Your task to perform on an android device: delete browsing data in the chrome app Image 0: 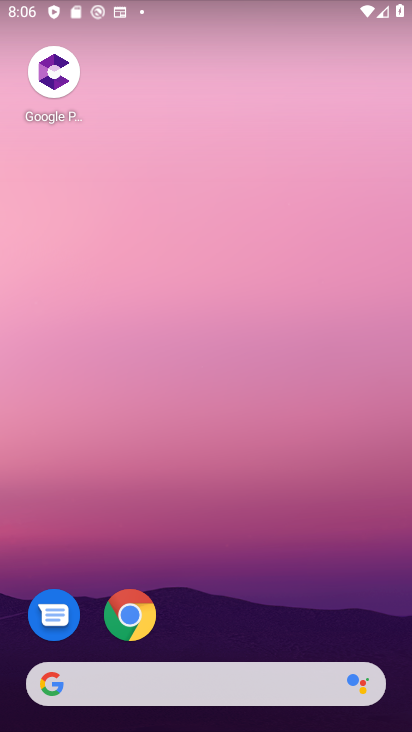
Step 0: click (142, 623)
Your task to perform on an android device: delete browsing data in the chrome app Image 1: 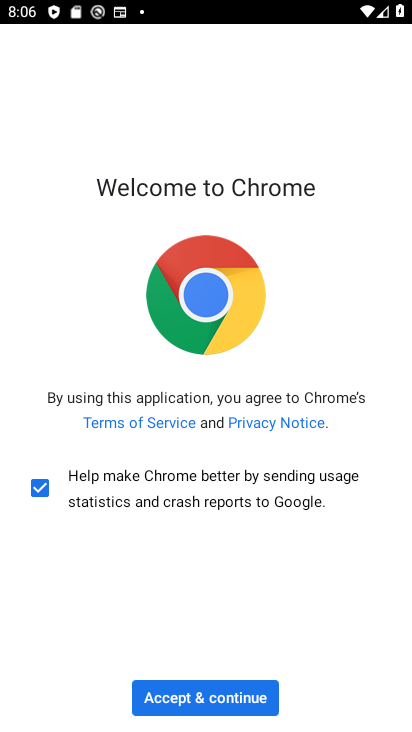
Step 1: click (205, 707)
Your task to perform on an android device: delete browsing data in the chrome app Image 2: 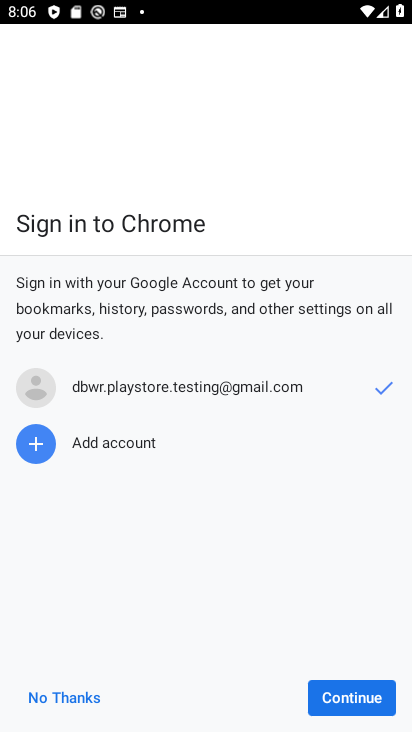
Step 2: click (317, 703)
Your task to perform on an android device: delete browsing data in the chrome app Image 3: 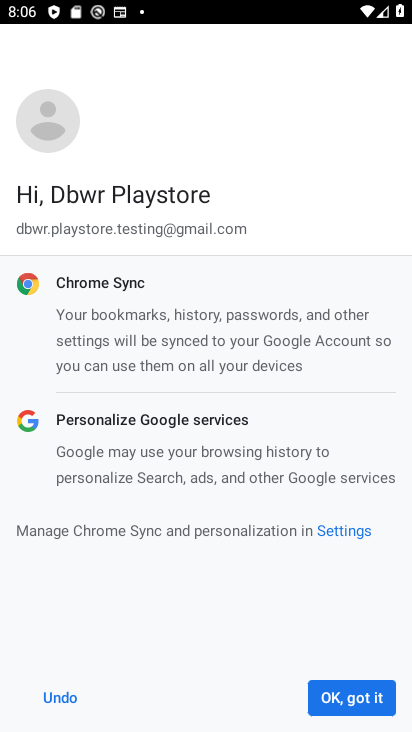
Step 3: click (309, 696)
Your task to perform on an android device: delete browsing data in the chrome app Image 4: 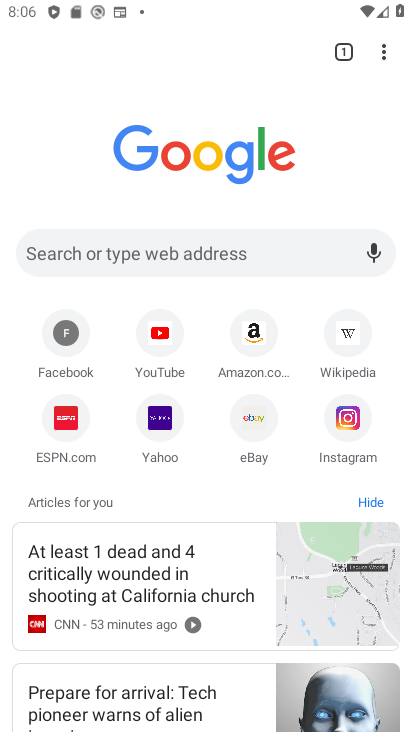
Step 4: press home button
Your task to perform on an android device: delete browsing data in the chrome app Image 5: 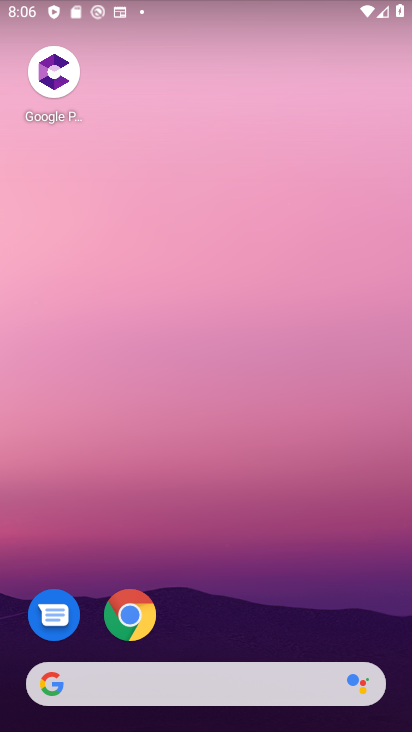
Step 5: click (112, 613)
Your task to perform on an android device: delete browsing data in the chrome app Image 6: 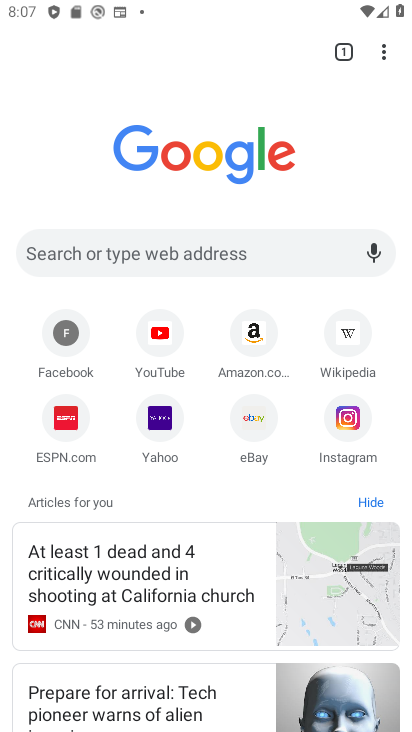
Step 6: click (384, 55)
Your task to perform on an android device: delete browsing data in the chrome app Image 7: 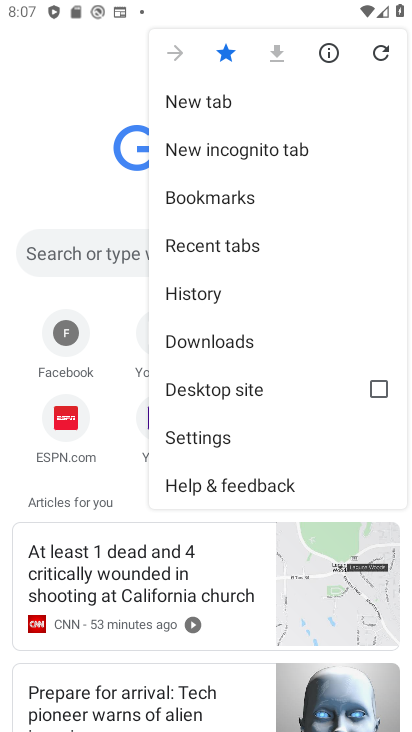
Step 7: click (195, 434)
Your task to perform on an android device: delete browsing data in the chrome app Image 8: 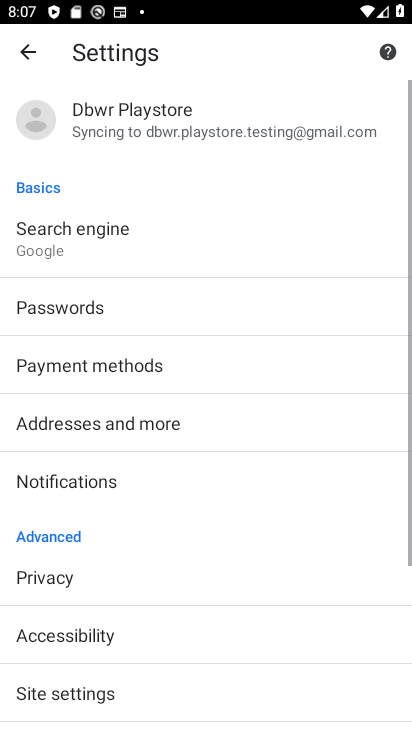
Step 8: drag from (136, 703) to (120, 417)
Your task to perform on an android device: delete browsing data in the chrome app Image 9: 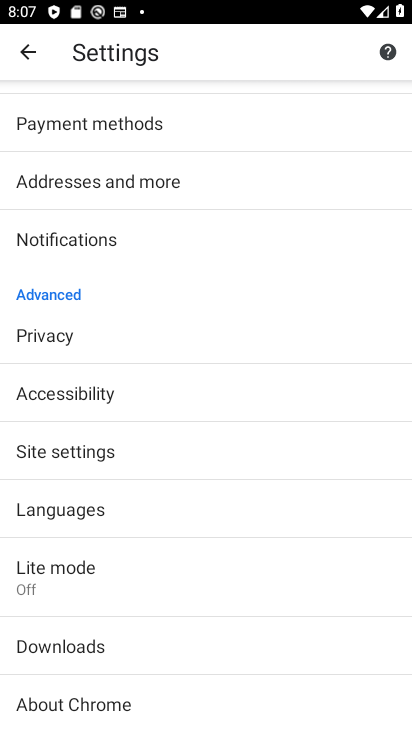
Step 9: click (40, 347)
Your task to perform on an android device: delete browsing data in the chrome app Image 10: 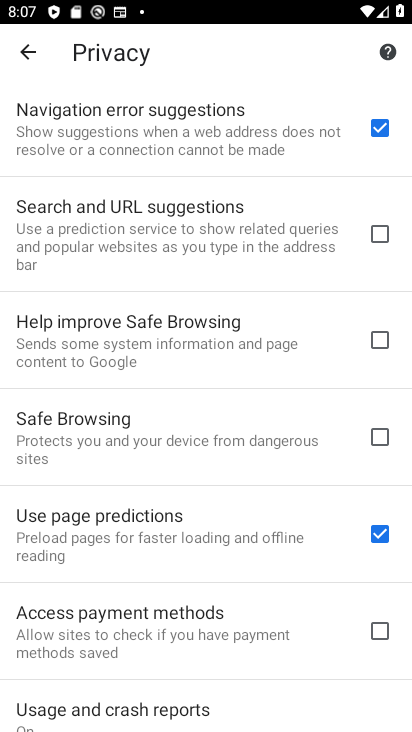
Step 10: drag from (174, 679) to (189, 216)
Your task to perform on an android device: delete browsing data in the chrome app Image 11: 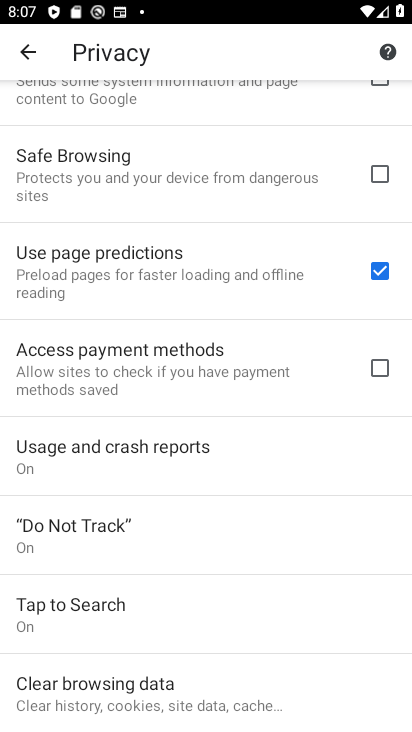
Step 11: click (155, 696)
Your task to perform on an android device: delete browsing data in the chrome app Image 12: 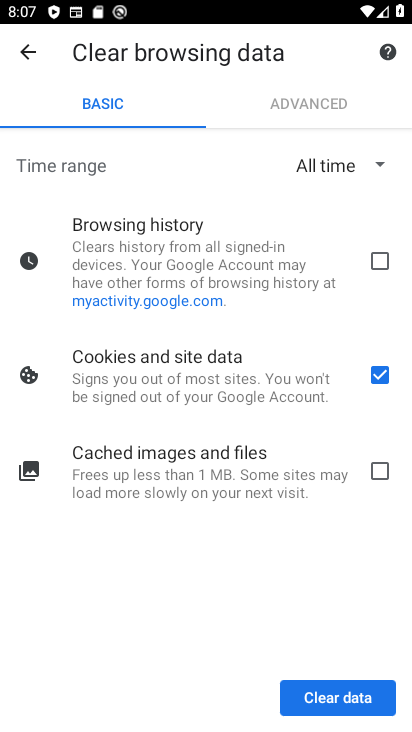
Step 12: click (374, 469)
Your task to perform on an android device: delete browsing data in the chrome app Image 13: 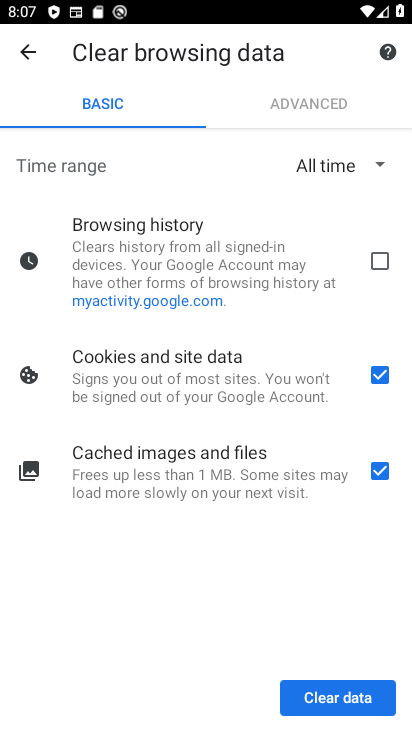
Step 13: click (389, 252)
Your task to perform on an android device: delete browsing data in the chrome app Image 14: 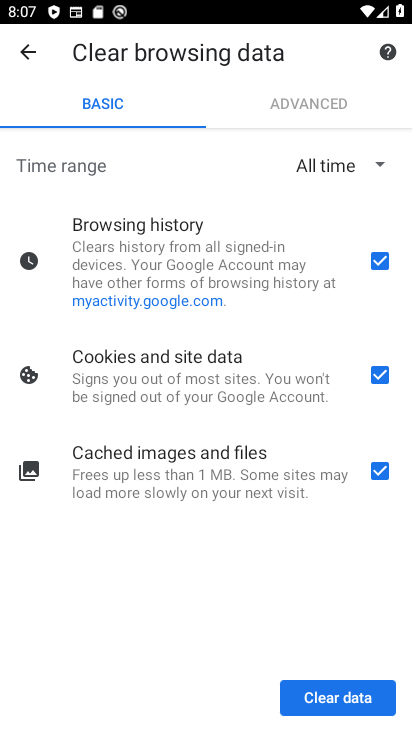
Step 14: click (342, 691)
Your task to perform on an android device: delete browsing data in the chrome app Image 15: 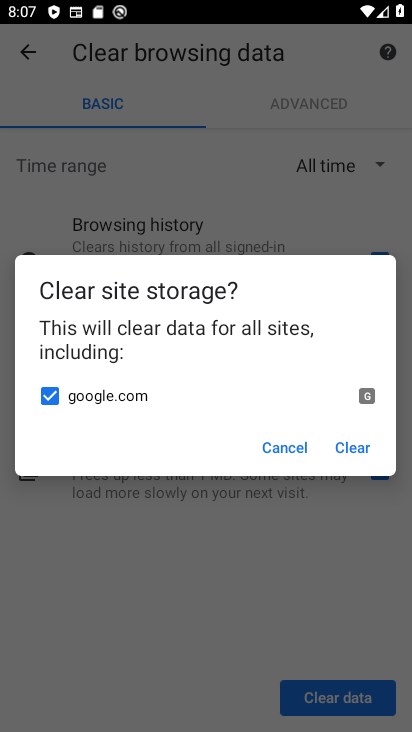
Step 15: click (370, 440)
Your task to perform on an android device: delete browsing data in the chrome app Image 16: 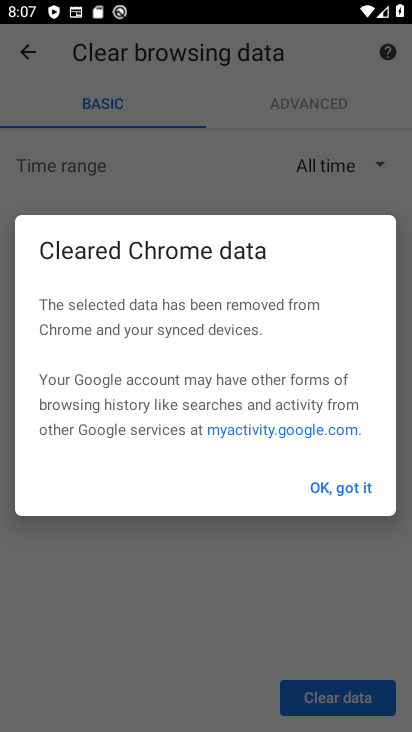
Step 16: click (354, 486)
Your task to perform on an android device: delete browsing data in the chrome app Image 17: 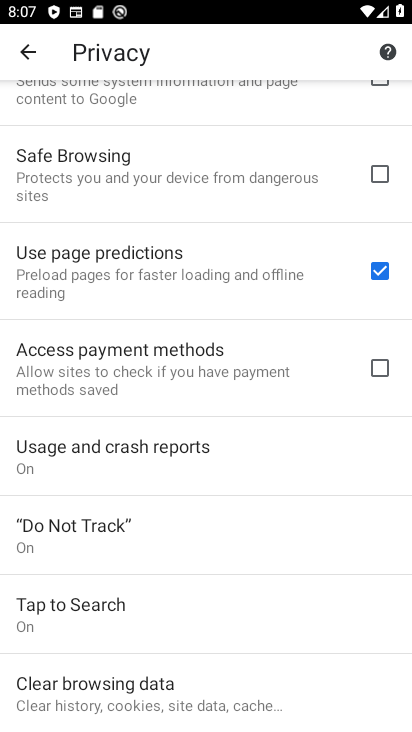
Step 17: task complete